Your task to perform on an android device: show emergency info Image 0: 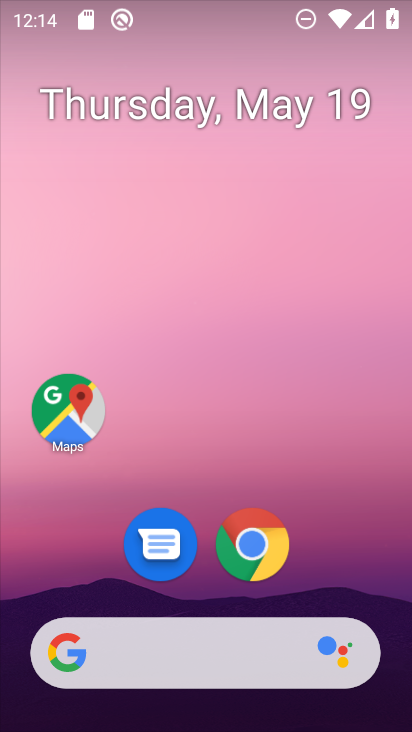
Step 0: drag from (334, 553) to (368, 3)
Your task to perform on an android device: show emergency info Image 1: 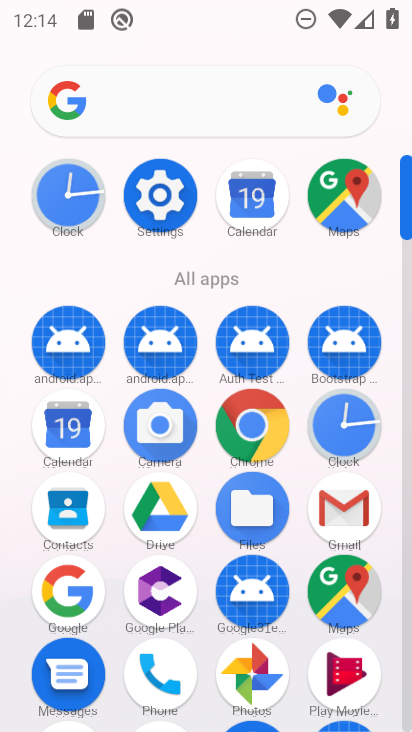
Step 1: click (173, 223)
Your task to perform on an android device: show emergency info Image 2: 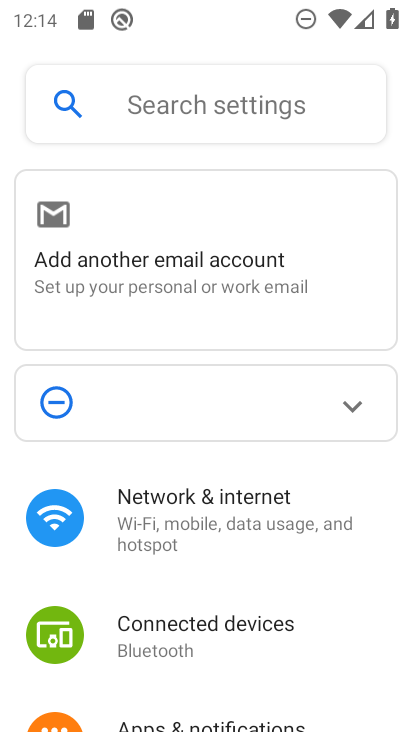
Step 2: drag from (228, 533) to (215, 8)
Your task to perform on an android device: show emergency info Image 3: 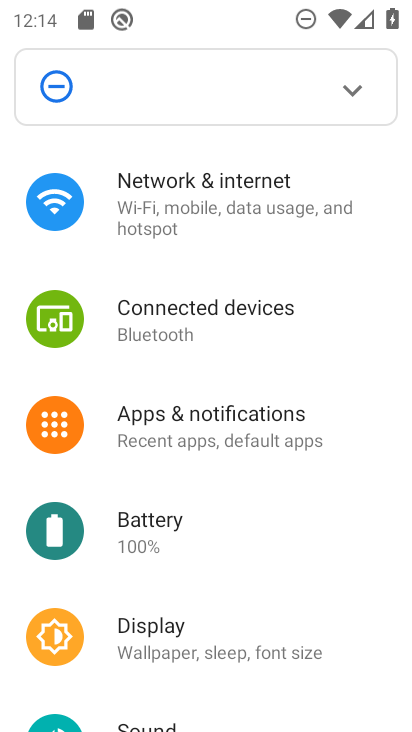
Step 3: drag from (188, 550) to (220, 38)
Your task to perform on an android device: show emergency info Image 4: 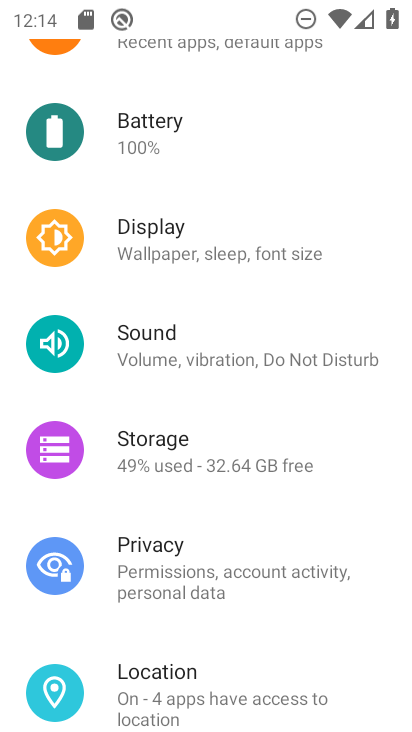
Step 4: drag from (123, 642) to (138, 201)
Your task to perform on an android device: show emergency info Image 5: 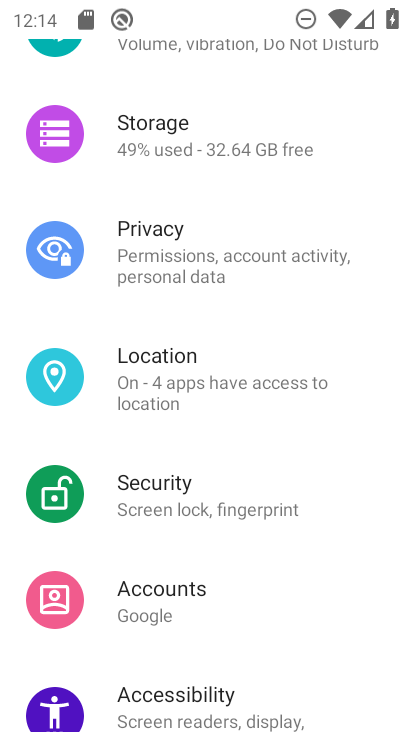
Step 5: drag from (204, 576) to (202, 248)
Your task to perform on an android device: show emergency info Image 6: 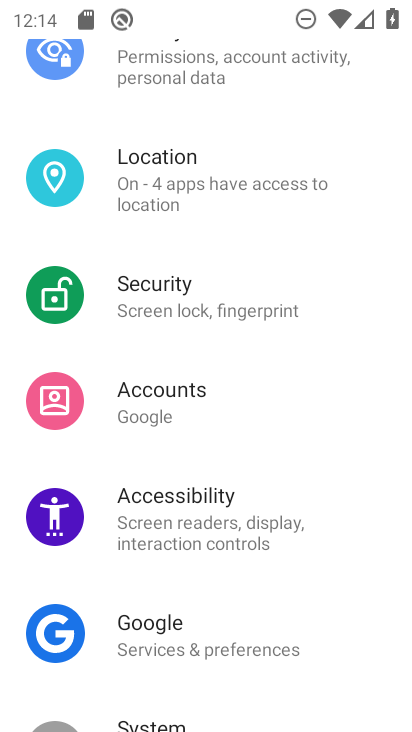
Step 6: drag from (244, 662) to (231, 265)
Your task to perform on an android device: show emergency info Image 7: 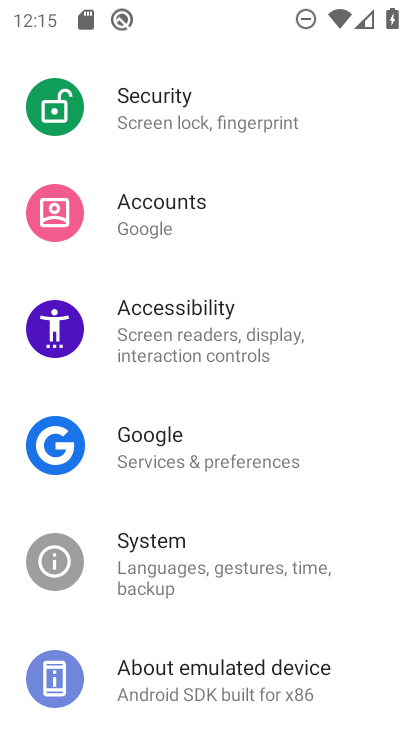
Step 7: click (252, 655)
Your task to perform on an android device: show emergency info Image 8: 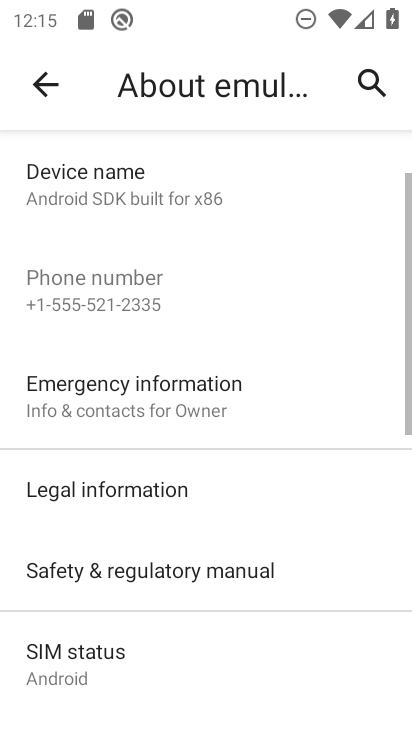
Step 8: click (188, 429)
Your task to perform on an android device: show emergency info Image 9: 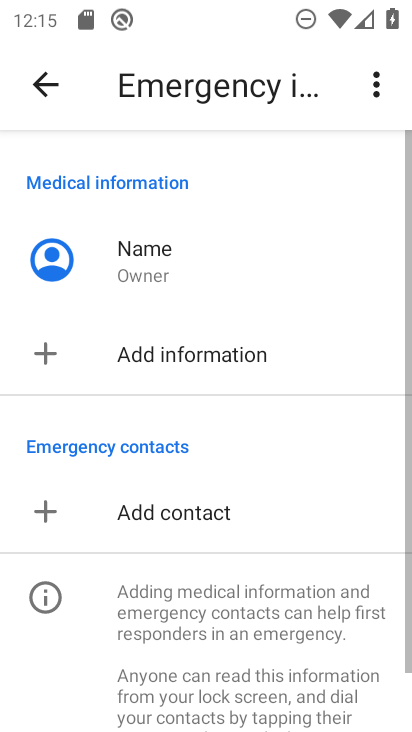
Step 9: task complete